Your task to perform on an android device: Open Reddit.com Image 0: 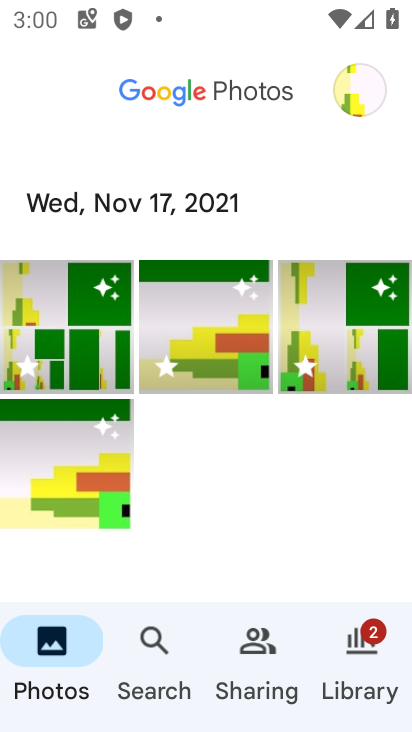
Step 0: press home button
Your task to perform on an android device: Open Reddit.com Image 1: 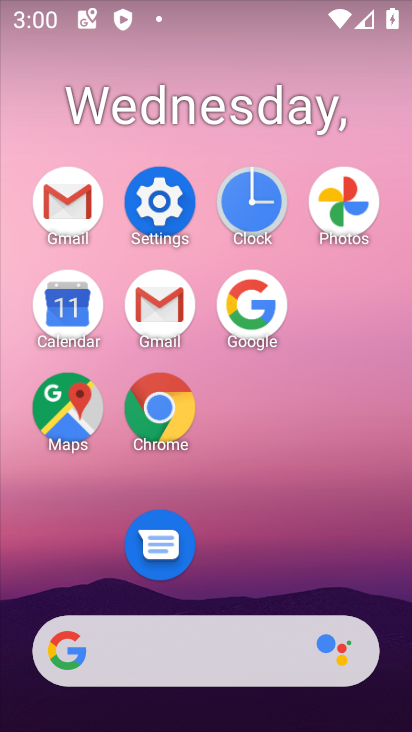
Step 1: click (147, 440)
Your task to perform on an android device: Open Reddit.com Image 2: 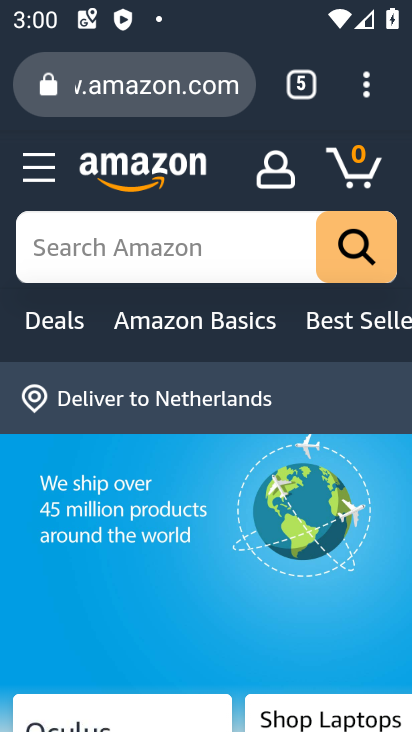
Step 2: click (314, 69)
Your task to perform on an android device: Open Reddit.com Image 3: 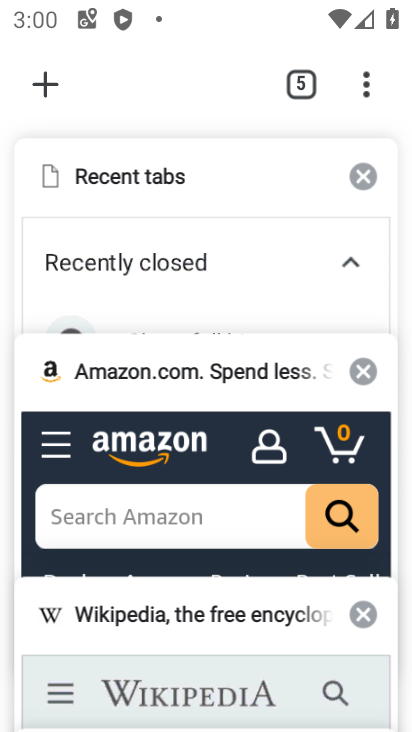
Step 3: drag from (178, 419) to (164, 493)
Your task to perform on an android device: Open Reddit.com Image 4: 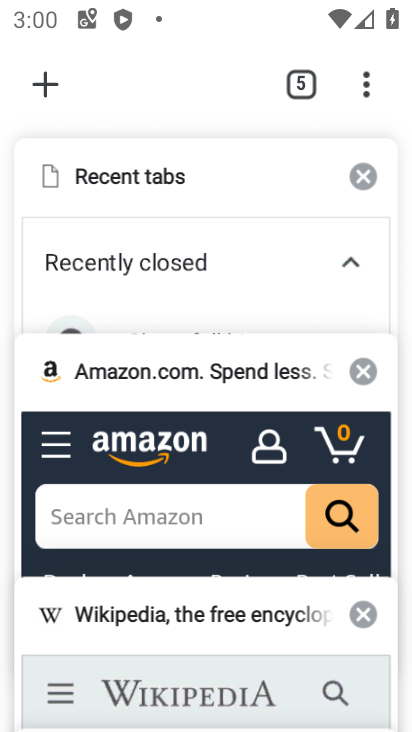
Step 4: click (48, 85)
Your task to perform on an android device: Open Reddit.com Image 5: 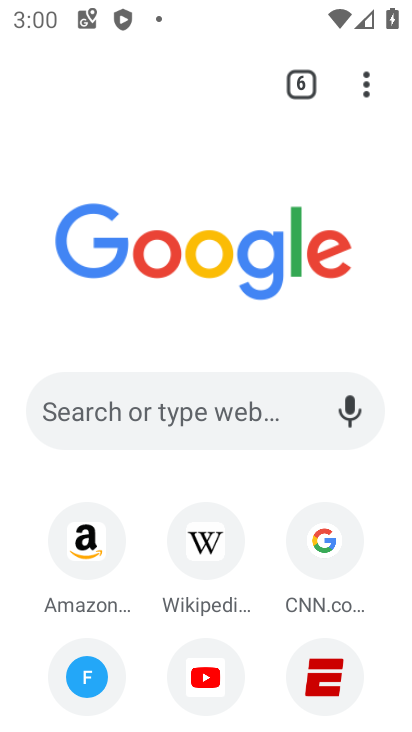
Step 5: click (154, 421)
Your task to perform on an android device: Open Reddit.com Image 6: 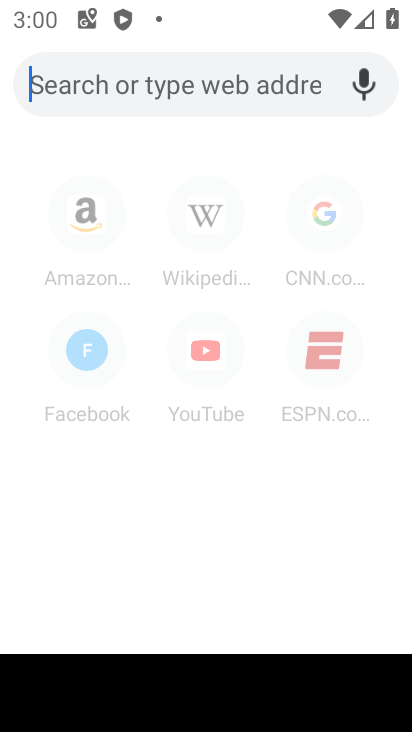
Step 6: type "reddit"
Your task to perform on an android device: Open Reddit.com Image 7: 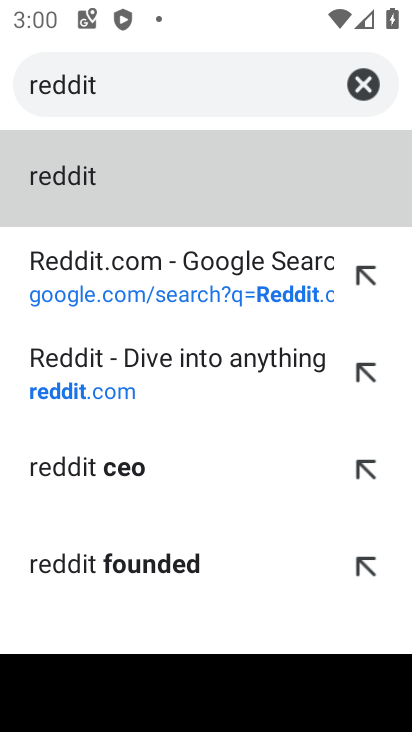
Step 7: click (162, 266)
Your task to perform on an android device: Open Reddit.com Image 8: 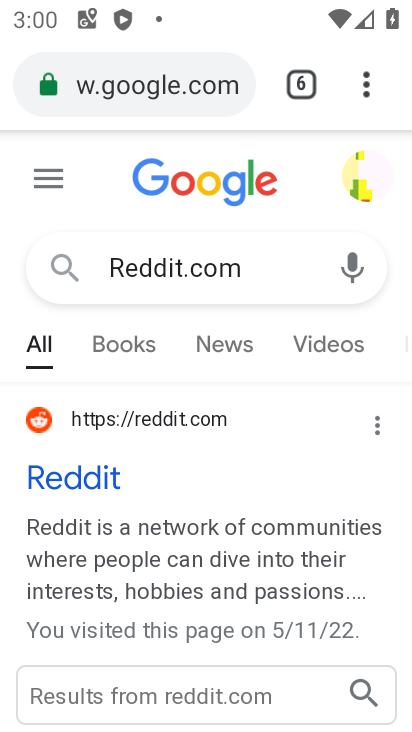
Step 8: click (98, 481)
Your task to perform on an android device: Open Reddit.com Image 9: 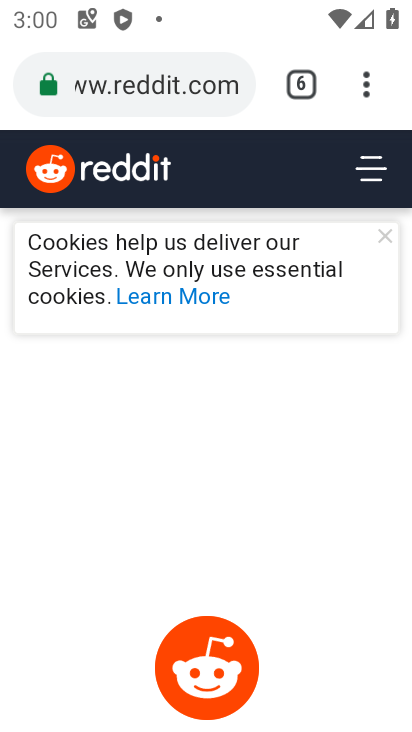
Step 9: task complete